Your task to perform on an android device: turn on airplane mode Image 0: 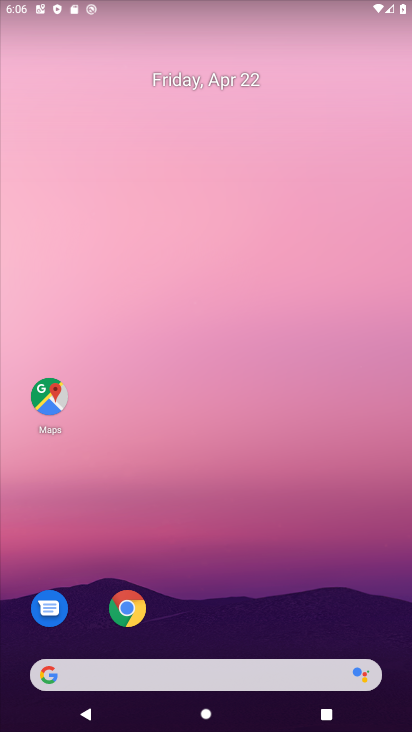
Step 0: drag from (279, 597) to (330, 79)
Your task to perform on an android device: turn on airplane mode Image 1: 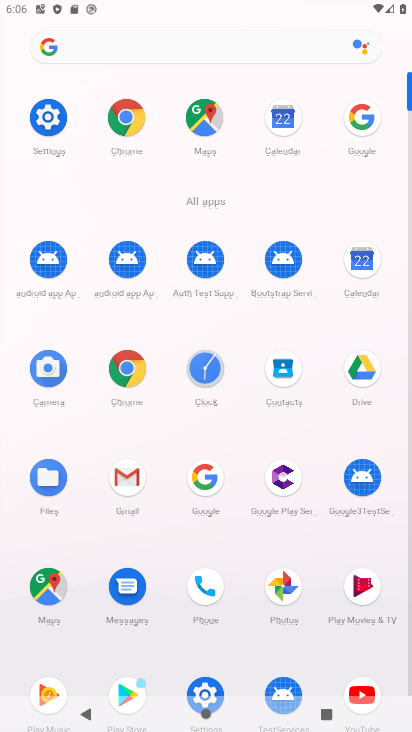
Step 1: click (53, 122)
Your task to perform on an android device: turn on airplane mode Image 2: 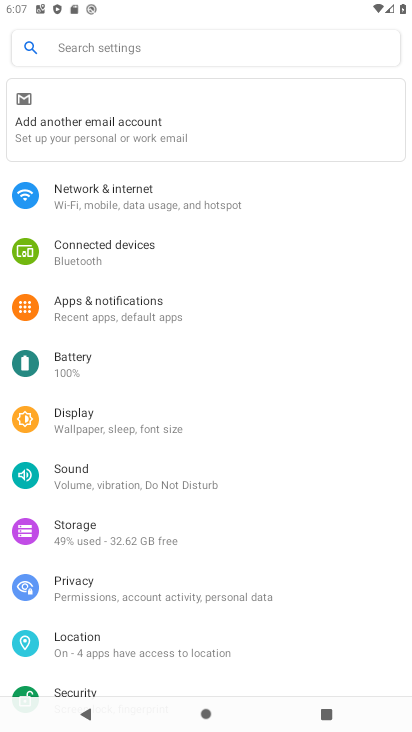
Step 2: click (115, 202)
Your task to perform on an android device: turn on airplane mode Image 3: 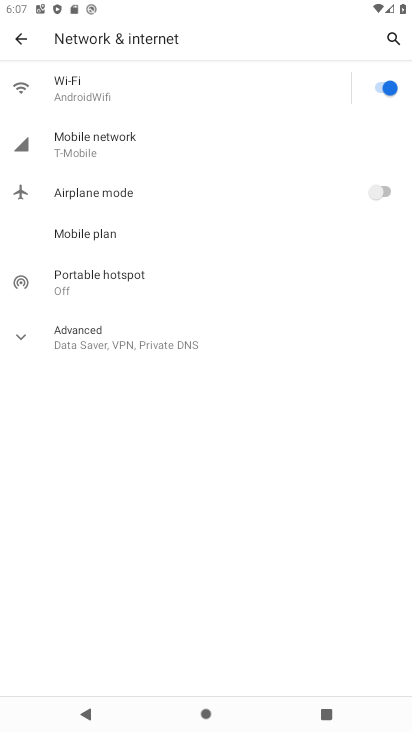
Step 3: click (393, 190)
Your task to perform on an android device: turn on airplane mode Image 4: 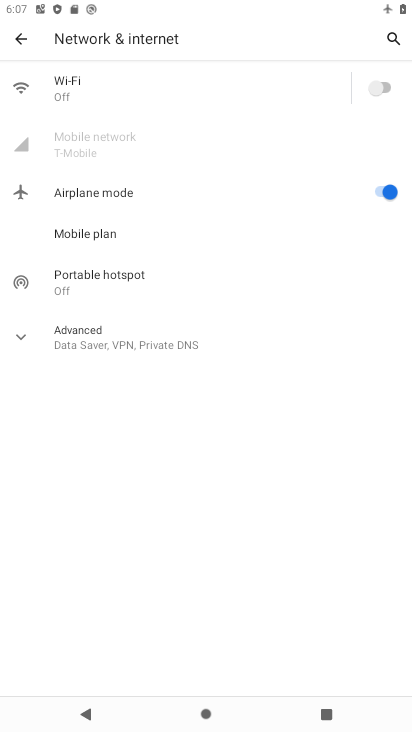
Step 4: task complete